Your task to perform on an android device: Open location settings Image 0: 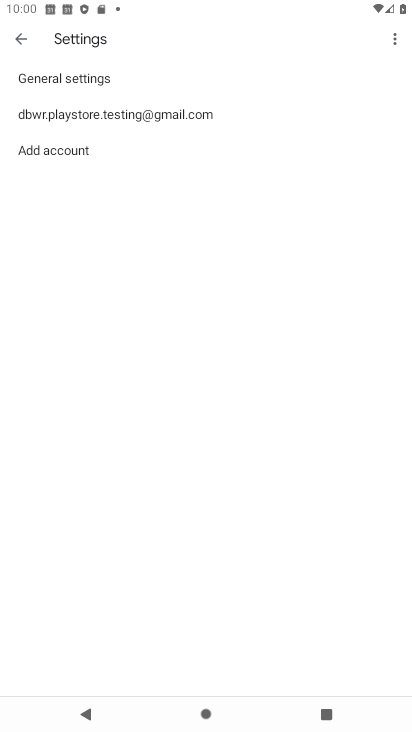
Step 0: click (128, 126)
Your task to perform on an android device: Open location settings Image 1: 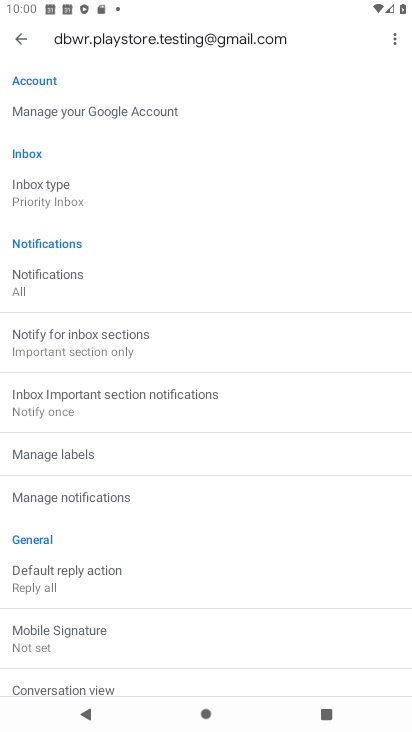
Step 1: press home button
Your task to perform on an android device: Open location settings Image 2: 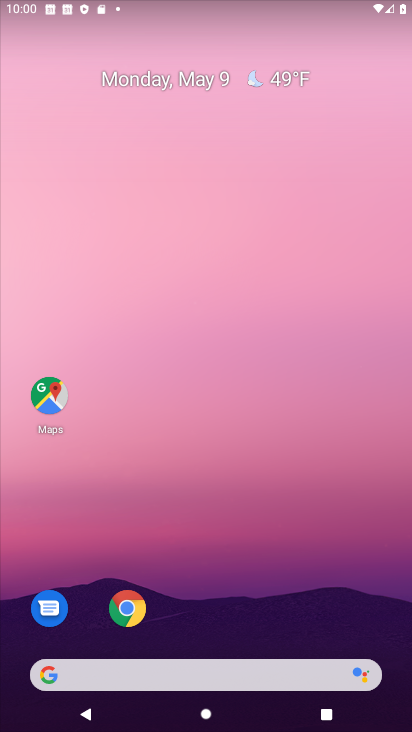
Step 2: drag from (321, 580) to (237, 95)
Your task to perform on an android device: Open location settings Image 3: 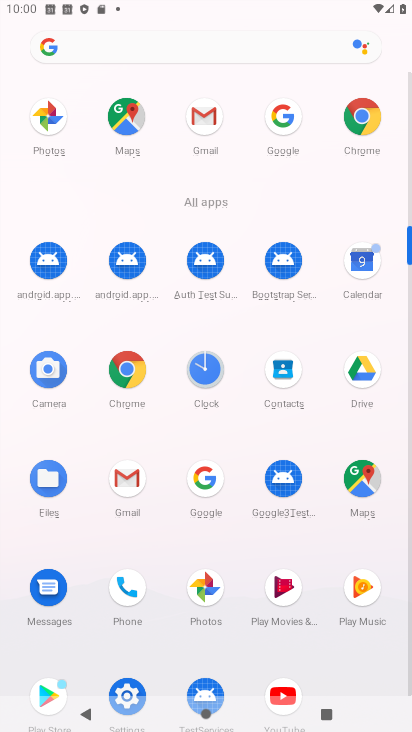
Step 3: click (127, 690)
Your task to perform on an android device: Open location settings Image 4: 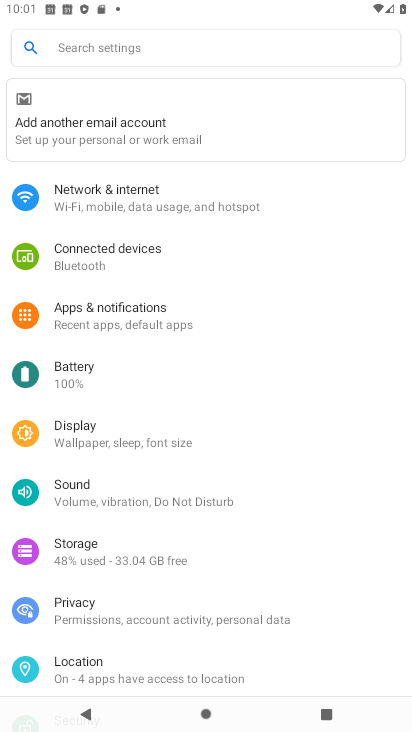
Step 4: click (145, 676)
Your task to perform on an android device: Open location settings Image 5: 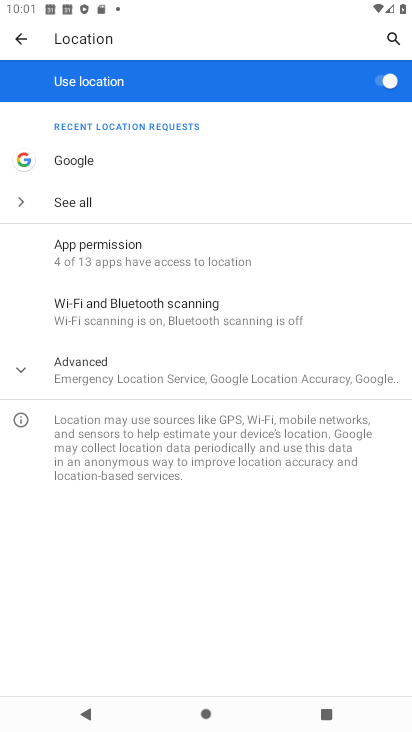
Step 5: task complete